Your task to perform on an android device: Open Google Maps and go to "Timeline" Image 0: 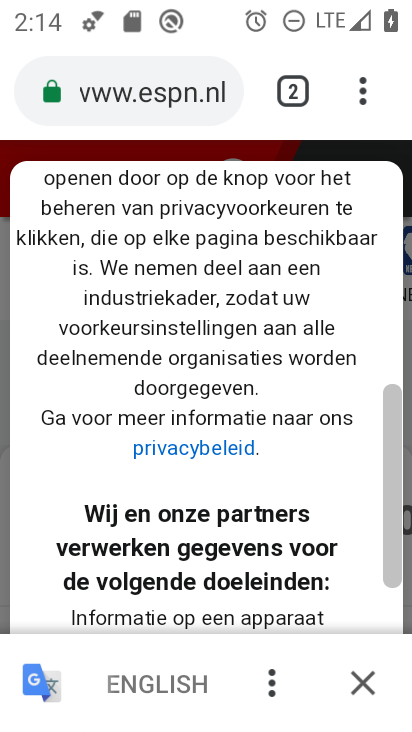
Step 0: press home button
Your task to perform on an android device: Open Google Maps and go to "Timeline" Image 1: 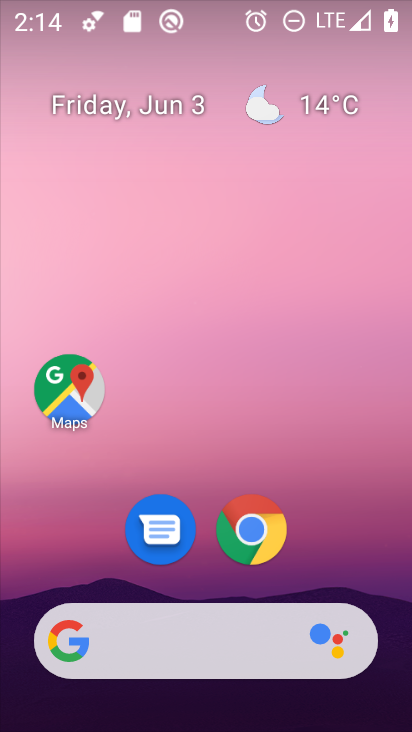
Step 1: drag from (359, 572) to (348, 255)
Your task to perform on an android device: Open Google Maps and go to "Timeline" Image 2: 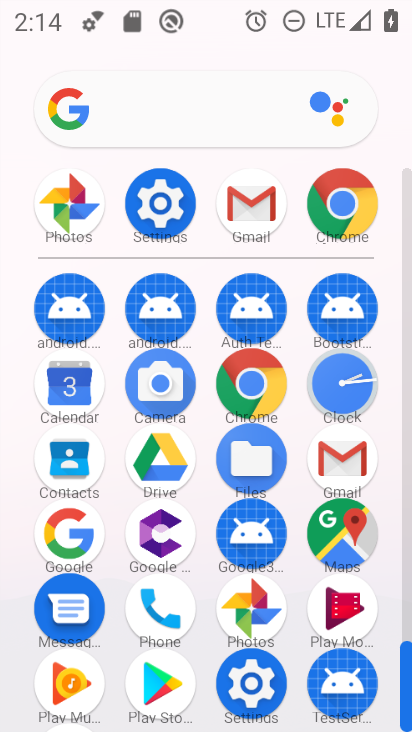
Step 2: click (353, 541)
Your task to perform on an android device: Open Google Maps and go to "Timeline" Image 3: 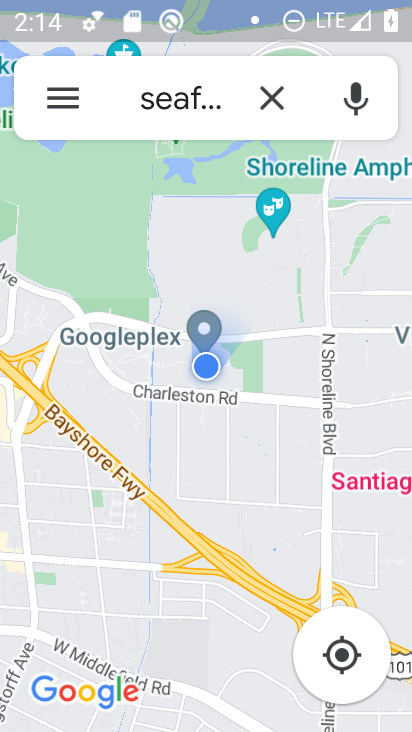
Step 3: click (65, 99)
Your task to perform on an android device: Open Google Maps and go to "Timeline" Image 4: 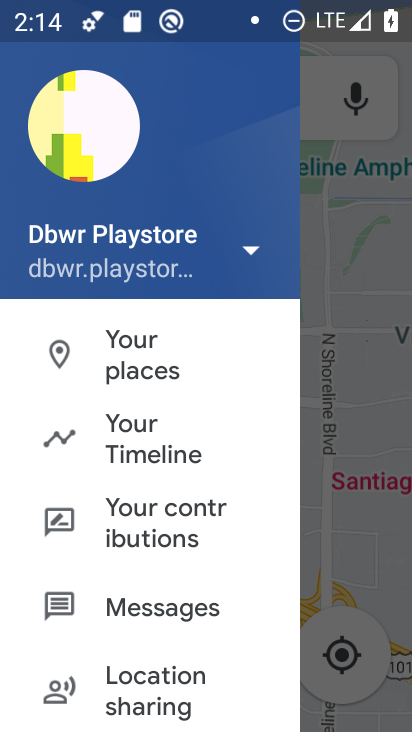
Step 4: drag from (234, 424) to (243, 222)
Your task to perform on an android device: Open Google Maps and go to "Timeline" Image 5: 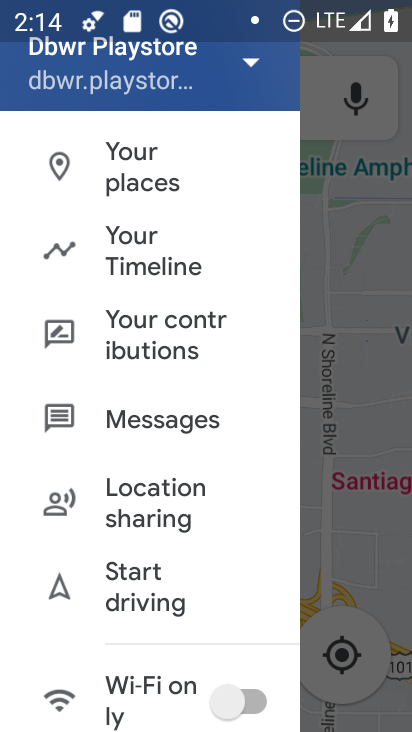
Step 5: click (209, 275)
Your task to perform on an android device: Open Google Maps and go to "Timeline" Image 6: 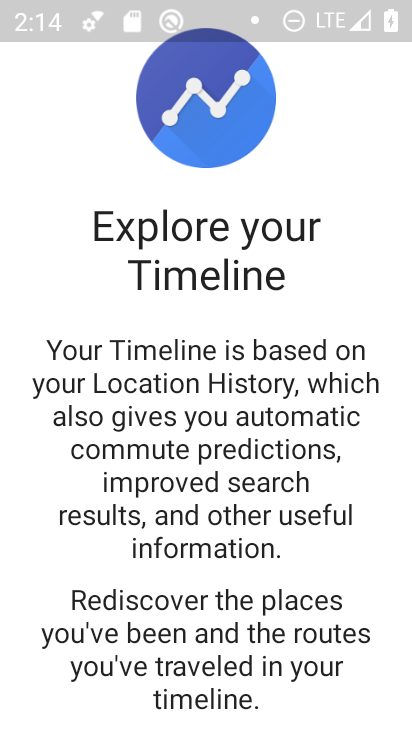
Step 6: task complete